Your task to perform on an android device: uninstall "ZOOM Cloud Meetings" Image 0: 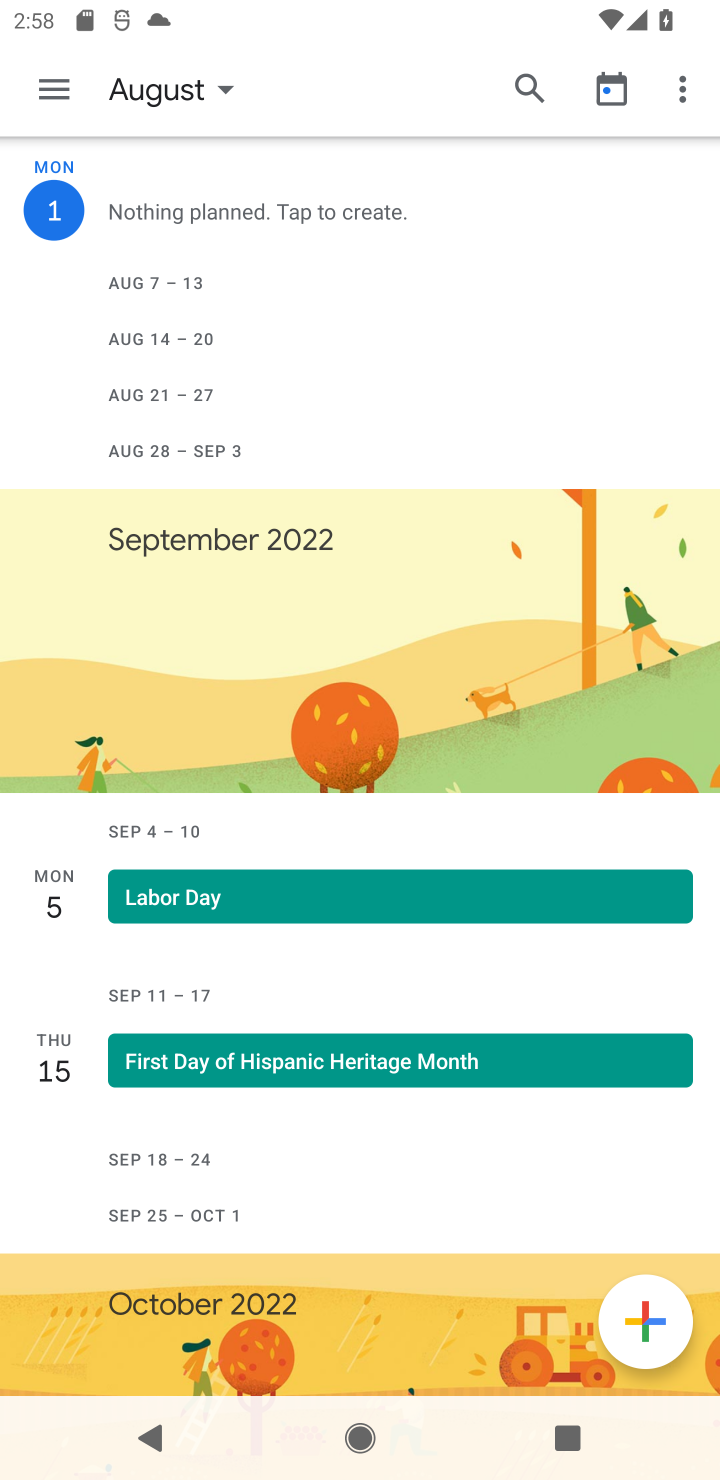
Step 0: press home button
Your task to perform on an android device: uninstall "ZOOM Cloud Meetings" Image 1: 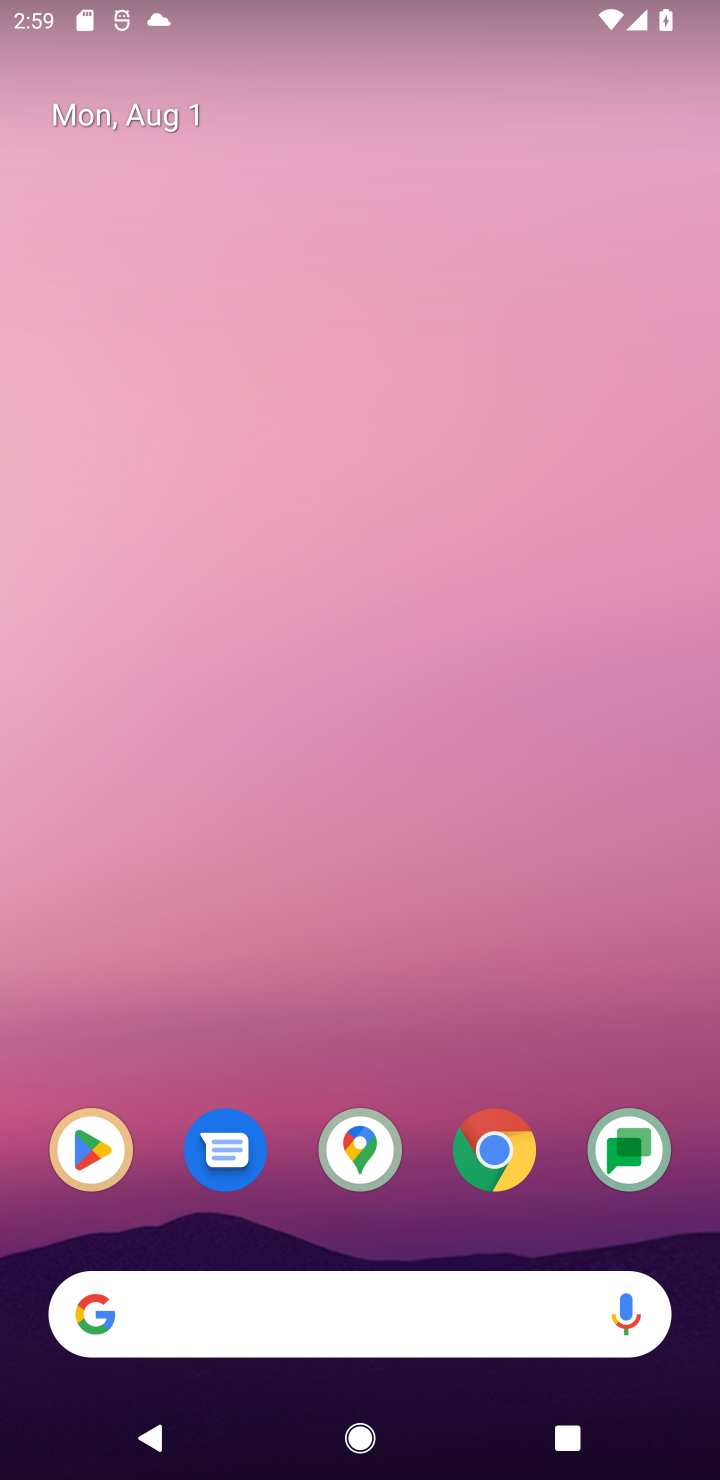
Step 1: click (522, 150)
Your task to perform on an android device: uninstall "ZOOM Cloud Meetings" Image 2: 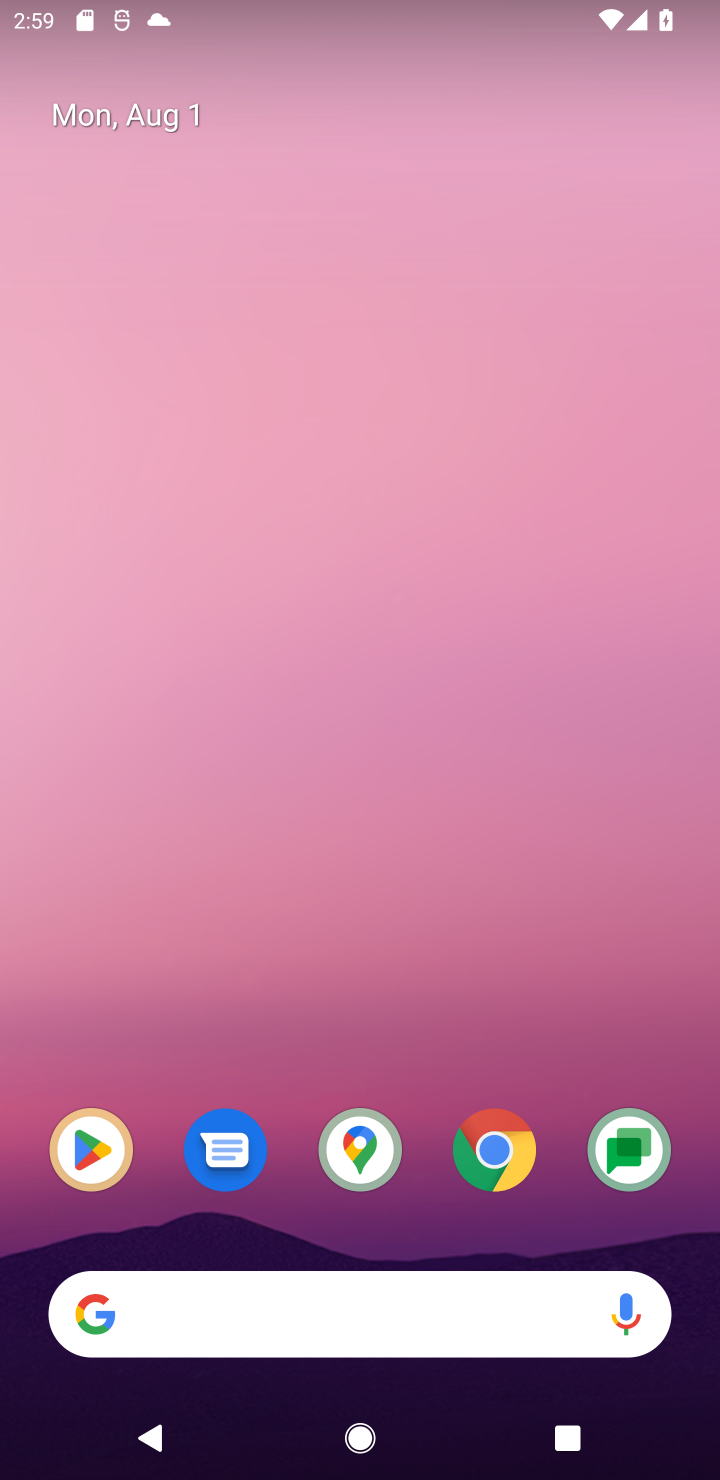
Step 2: task complete